Your task to perform on an android device: move an email to a new category in the gmail app Image 0: 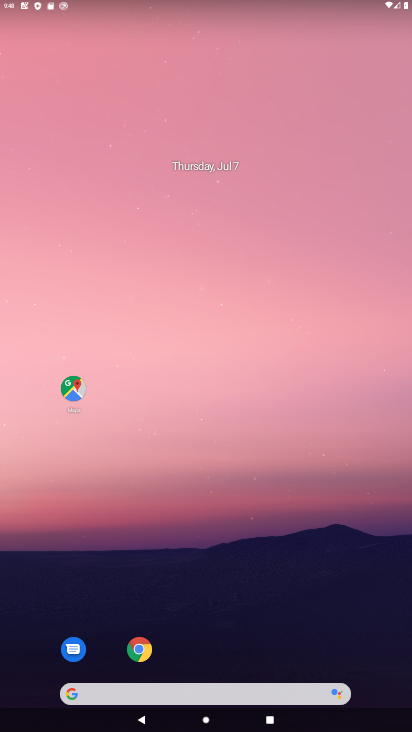
Step 0: drag from (256, 579) to (324, 189)
Your task to perform on an android device: move an email to a new category in the gmail app Image 1: 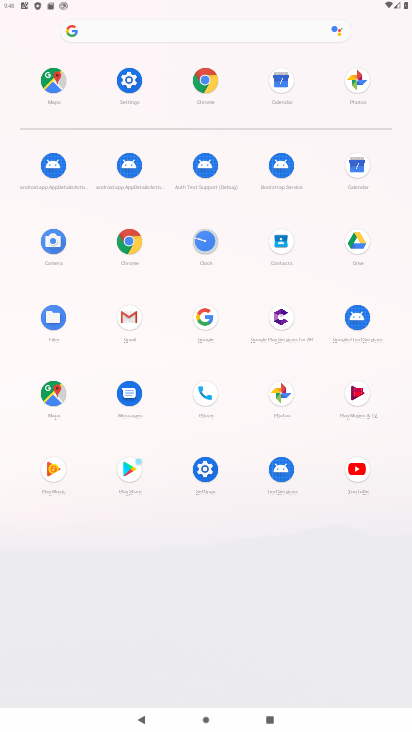
Step 1: click (119, 318)
Your task to perform on an android device: move an email to a new category in the gmail app Image 2: 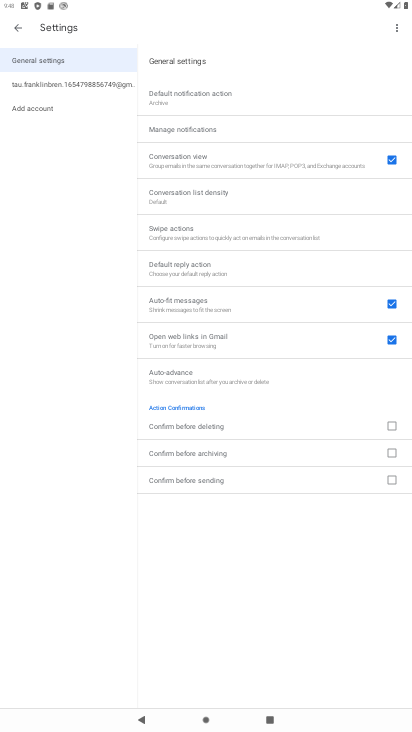
Step 2: click (15, 26)
Your task to perform on an android device: move an email to a new category in the gmail app Image 3: 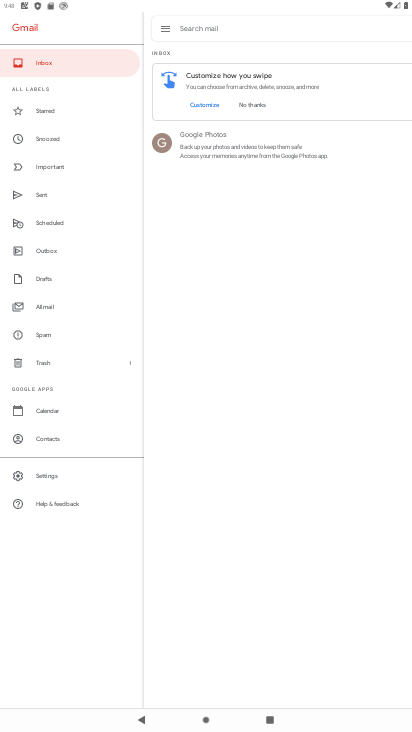
Step 3: click (158, 140)
Your task to perform on an android device: move an email to a new category in the gmail app Image 4: 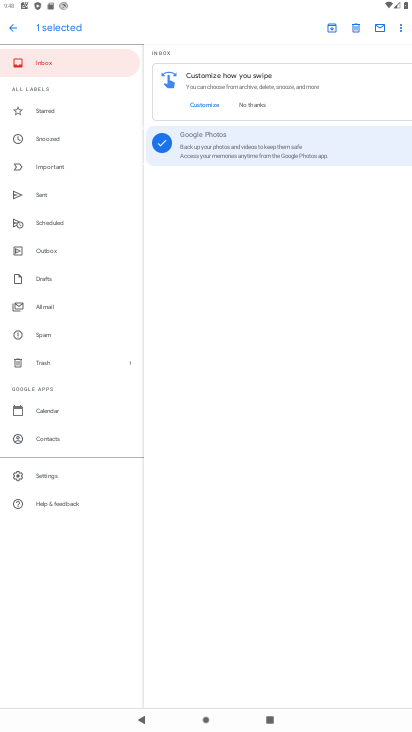
Step 4: click (399, 25)
Your task to perform on an android device: move an email to a new category in the gmail app Image 5: 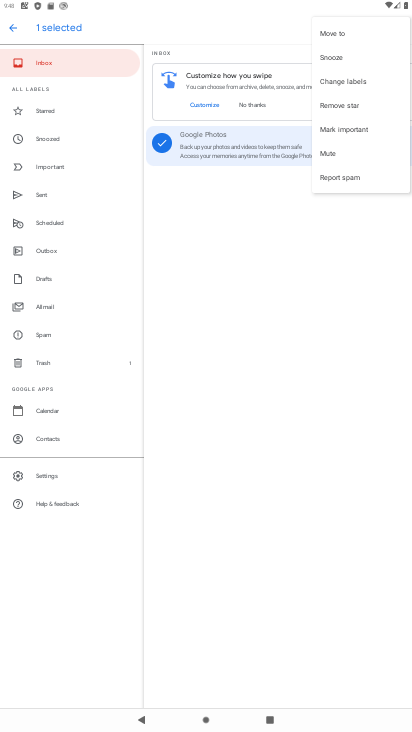
Step 5: click (332, 33)
Your task to perform on an android device: move an email to a new category in the gmail app Image 6: 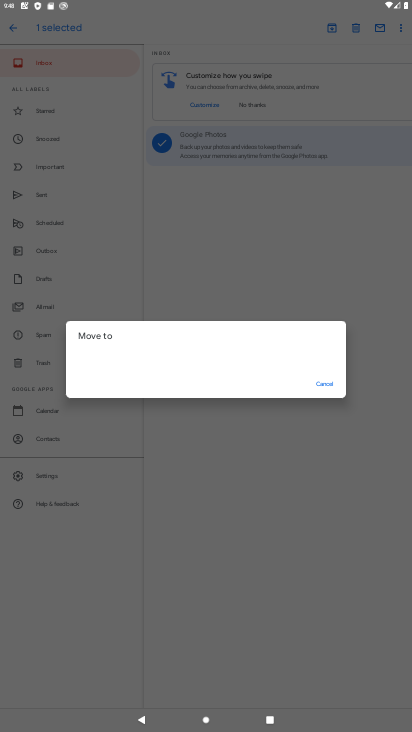
Step 6: task complete